Your task to perform on an android device: Check the weather Image 0: 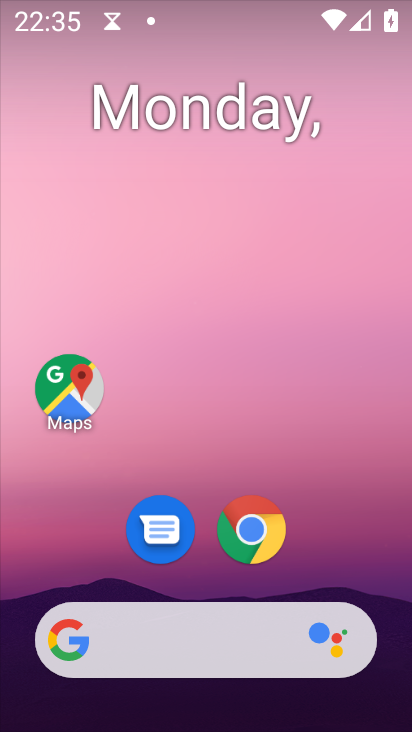
Step 0: drag from (315, 574) to (336, 151)
Your task to perform on an android device: Check the weather Image 1: 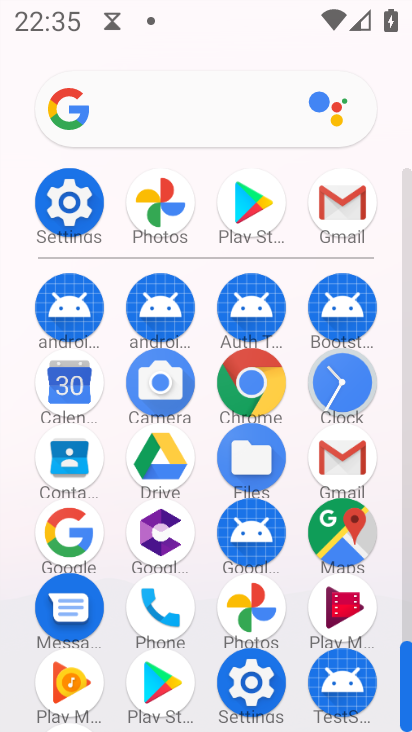
Step 1: click (64, 531)
Your task to perform on an android device: Check the weather Image 2: 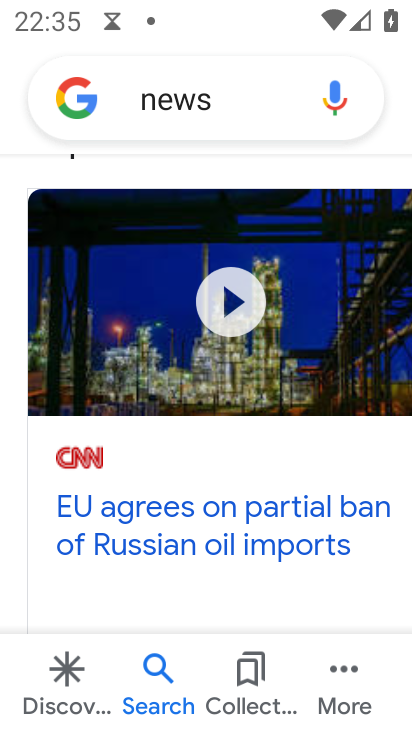
Step 2: click (254, 108)
Your task to perform on an android device: Check the weather Image 3: 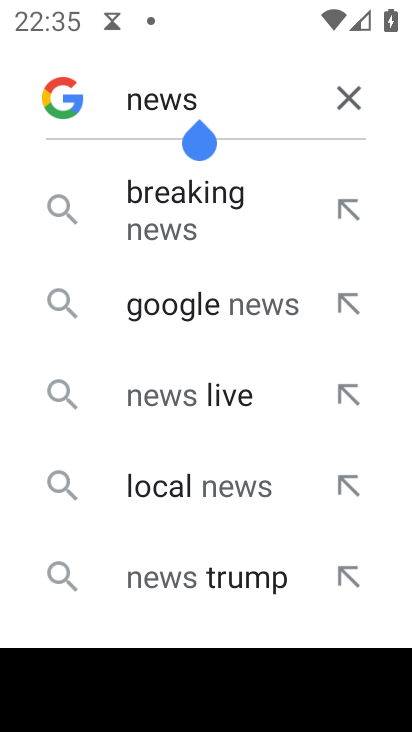
Step 3: click (352, 96)
Your task to perform on an android device: Check the weather Image 4: 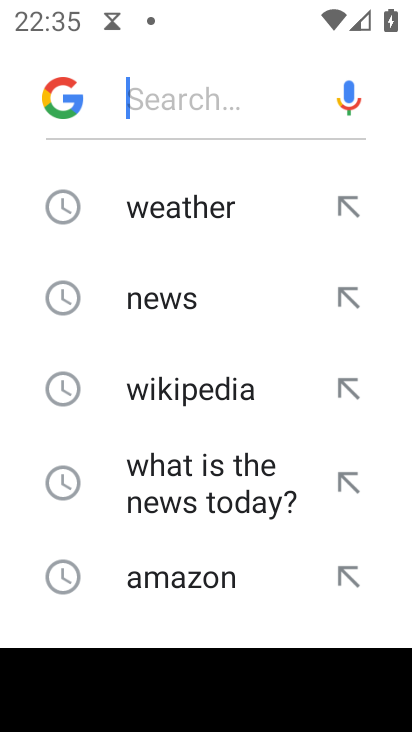
Step 4: click (205, 215)
Your task to perform on an android device: Check the weather Image 5: 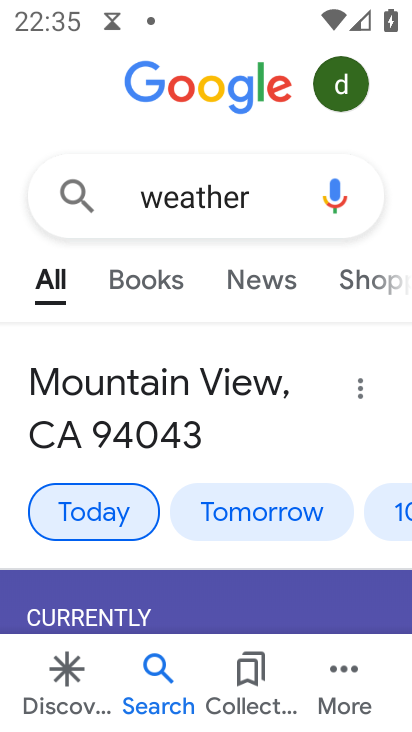
Step 5: task complete